Your task to perform on an android device: change notifications settings Image 0: 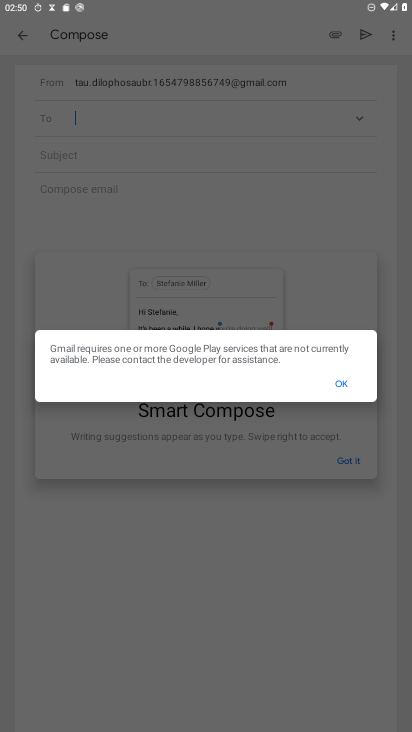
Step 0: press home button
Your task to perform on an android device: change notifications settings Image 1: 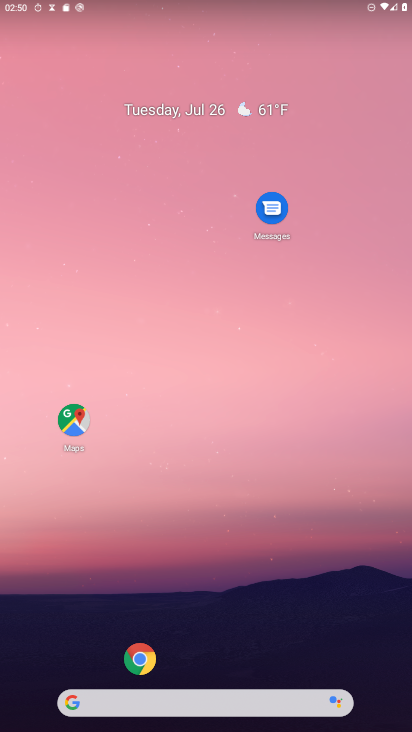
Step 1: drag from (56, 648) to (301, 12)
Your task to perform on an android device: change notifications settings Image 2: 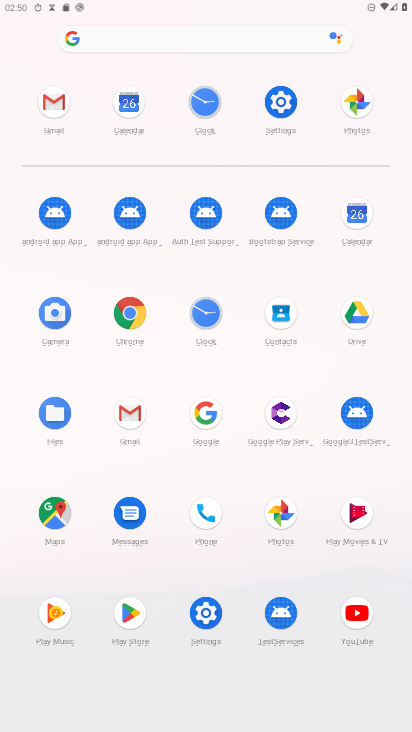
Step 2: click (201, 622)
Your task to perform on an android device: change notifications settings Image 3: 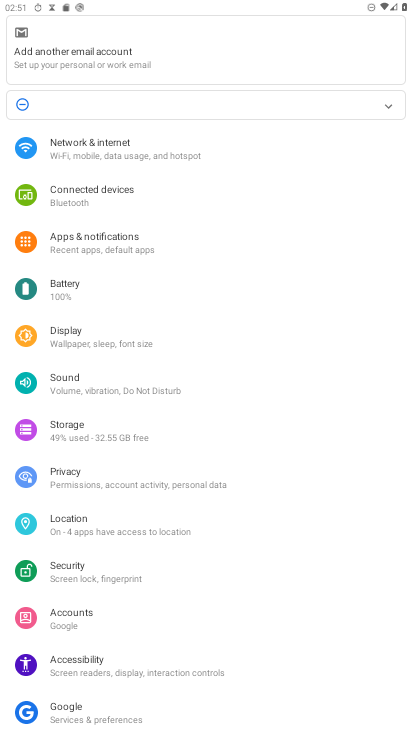
Step 3: click (140, 245)
Your task to perform on an android device: change notifications settings Image 4: 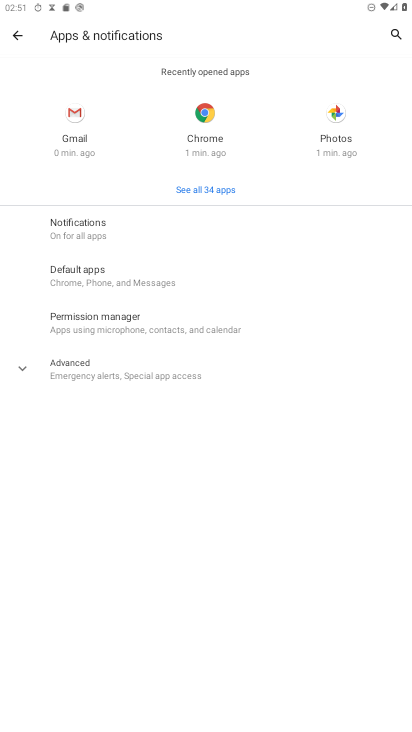
Step 4: click (93, 230)
Your task to perform on an android device: change notifications settings Image 5: 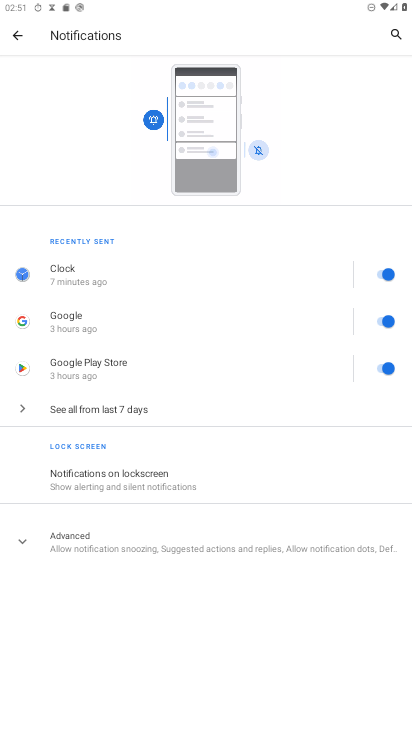
Step 5: task complete